Your task to perform on an android device: open app "Reddit" Image 0: 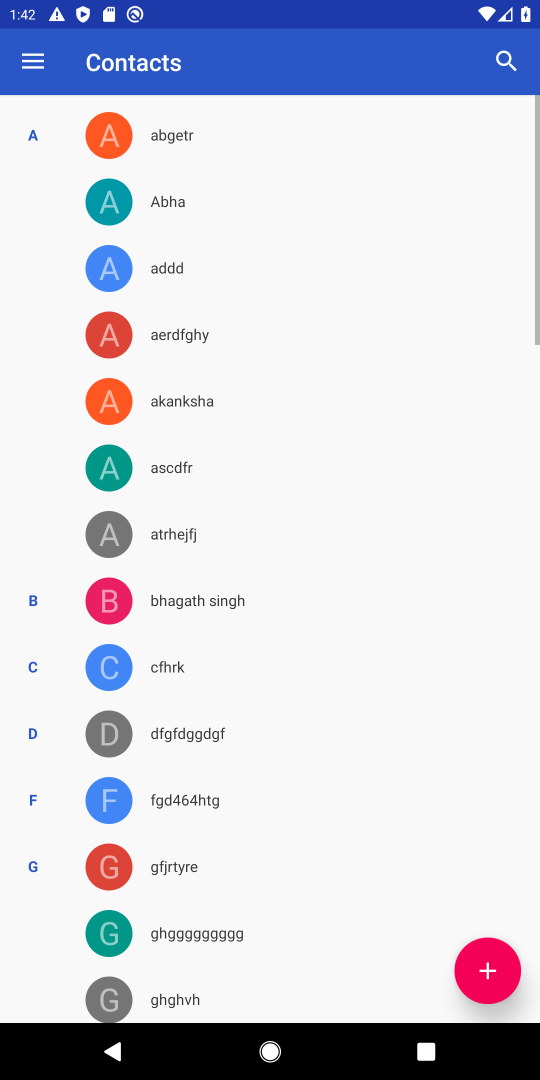
Step 0: press home button
Your task to perform on an android device: open app "Reddit" Image 1: 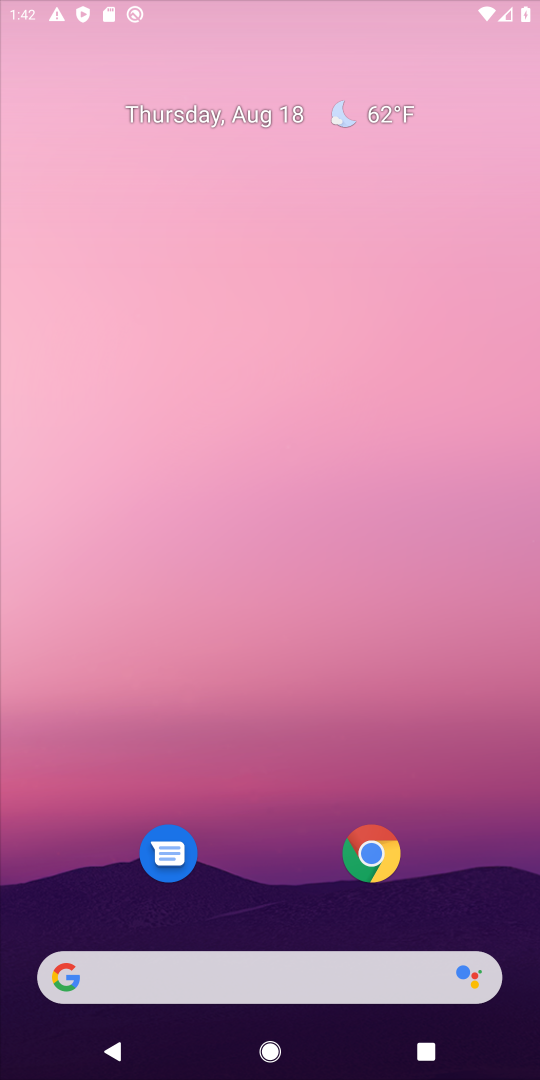
Step 1: drag from (492, 889) to (514, 8)
Your task to perform on an android device: open app "Reddit" Image 2: 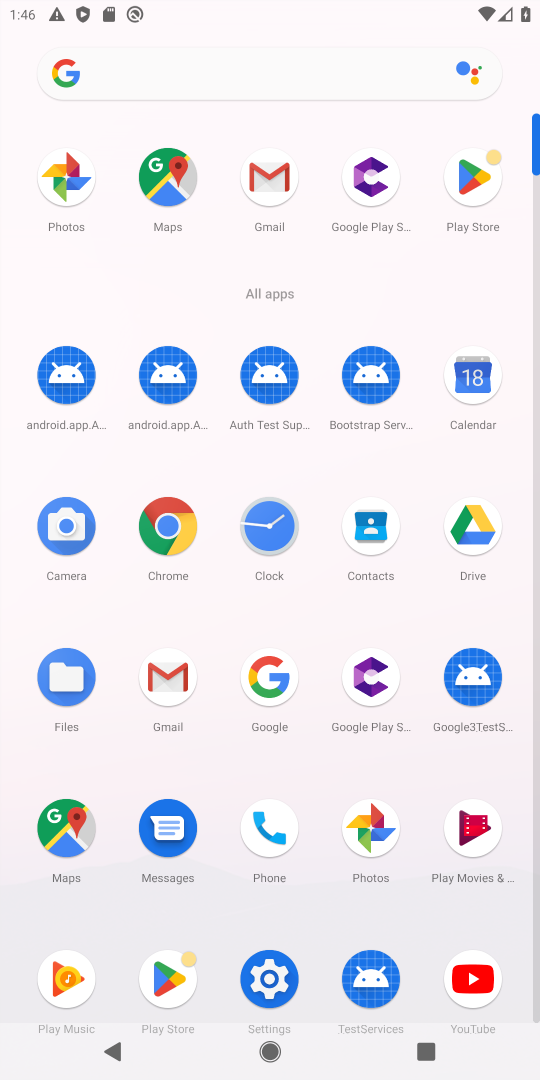
Step 2: click (468, 175)
Your task to perform on an android device: open app "Reddit" Image 3: 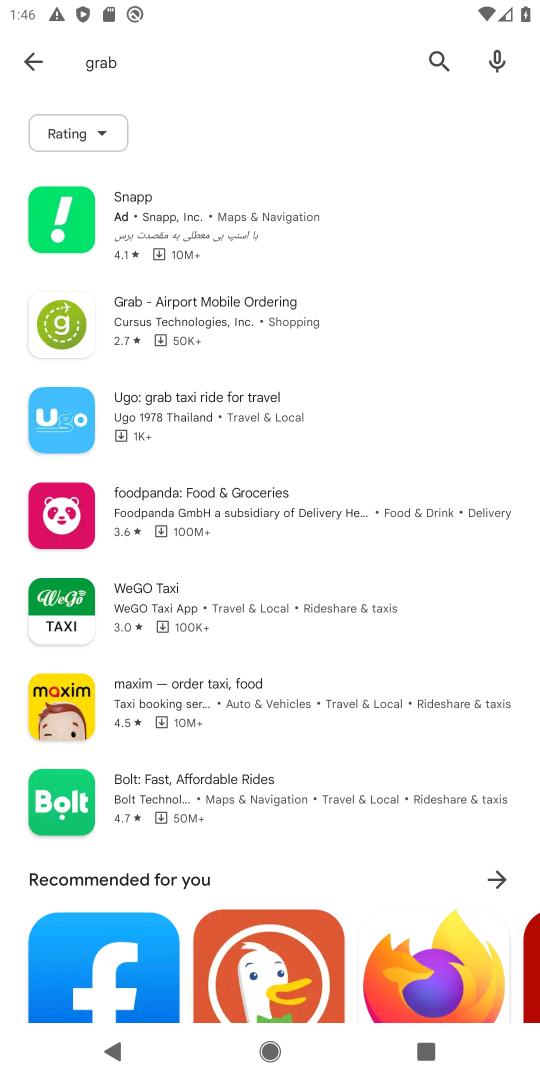
Step 3: press back button
Your task to perform on an android device: open app "Reddit" Image 4: 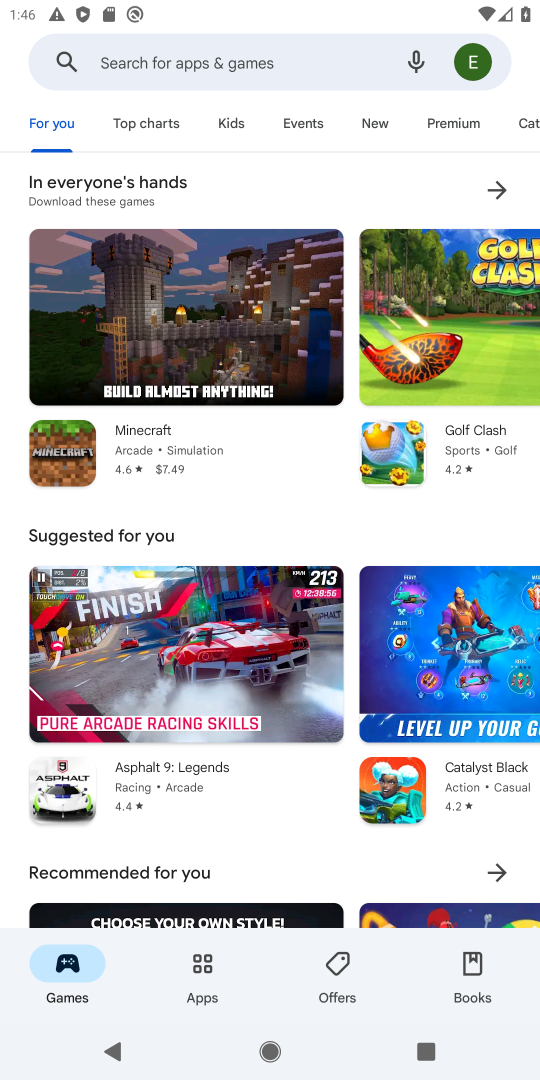
Step 4: click (159, 74)
Your task to perform on an android device: open app "Reddit" Image 5: 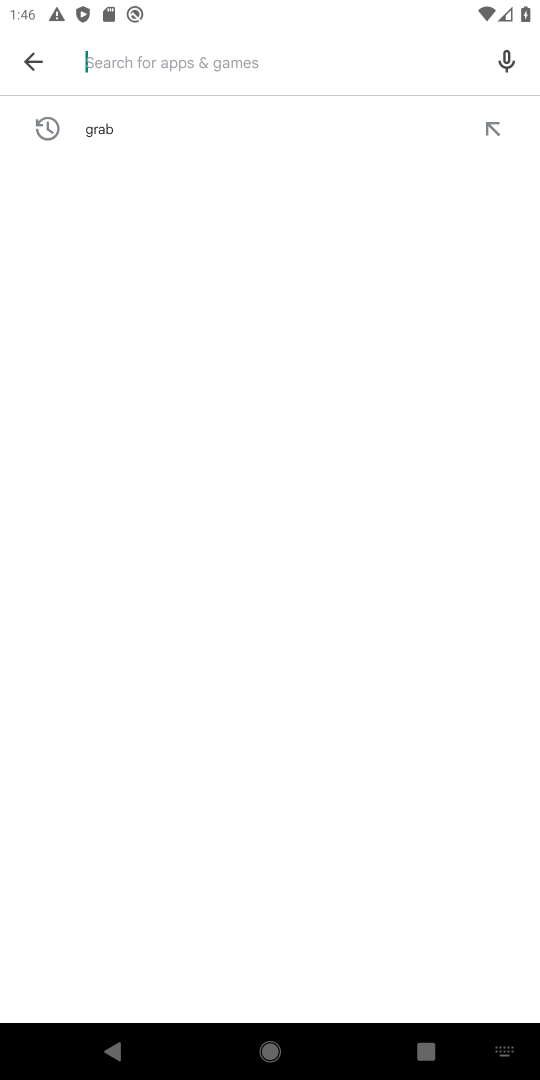
Step 5: type "Reddit"
Your task to perform on an android device: open app "Reddit" Image 6: 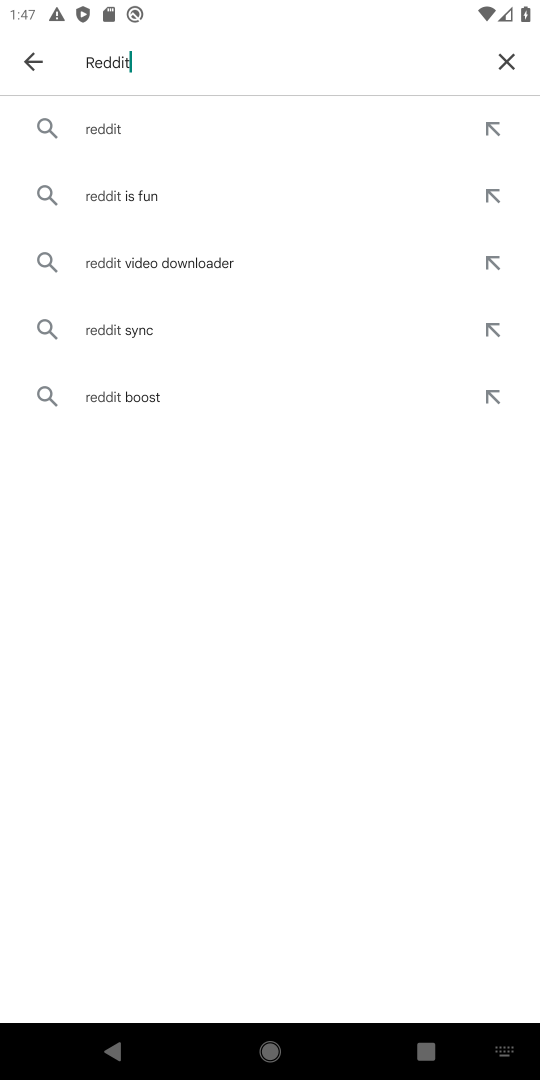
Step 6: click (119, 137)
Your task to perform on an android device: open app "Reddit" Image 7: 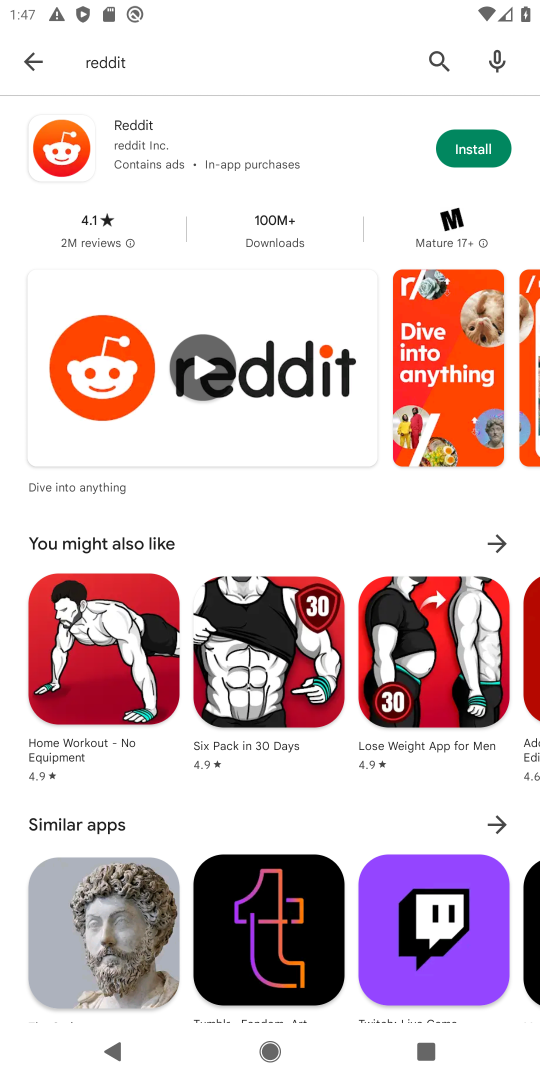
Step 7: task complete